Your task to perform on an android device: change notification settings in the gmail app Image 0: 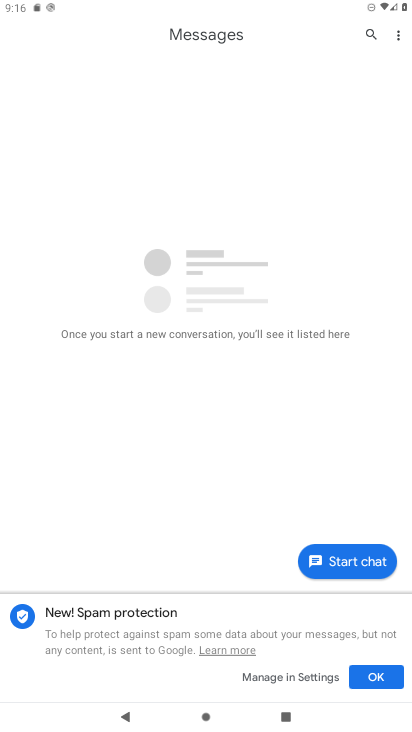
Step 0: press home button
Your task to perform on an android device: change notification settings in the gmail app Image 1: 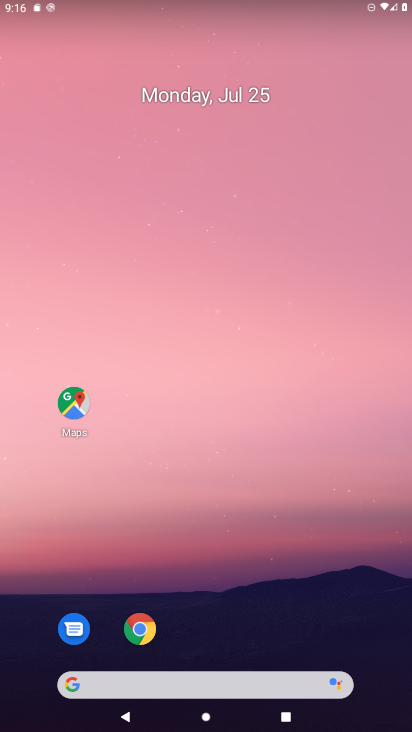
Step 1: drag from (210, 653) to (243, 15)
Your task to perform on an android device: change notification settings in the gmail app Image 2: 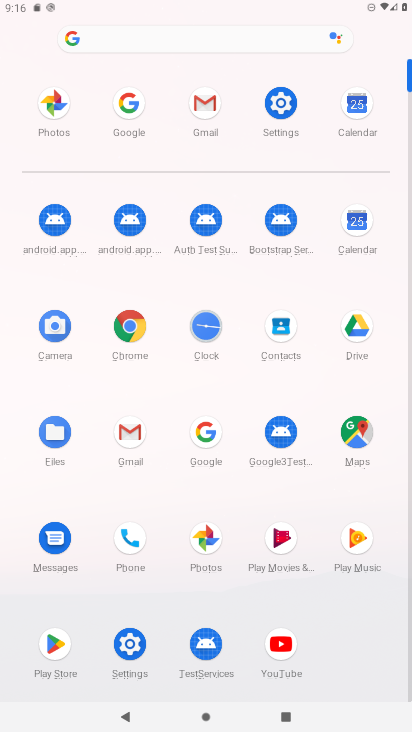
Step 2: click (208, 116)
Your task to perform on an android device: change notification settings in the gmail app Image 3: 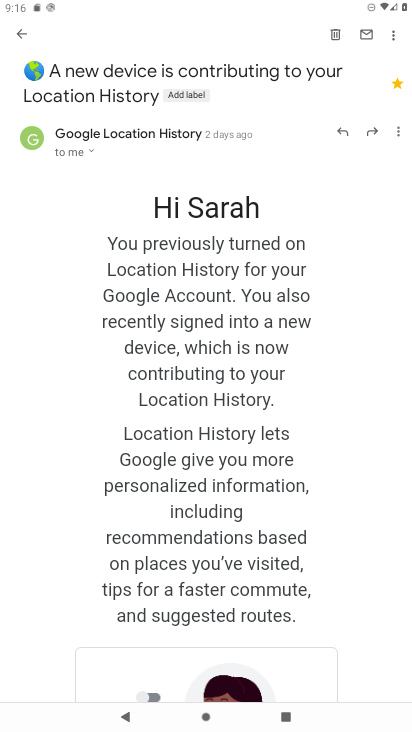
Step 3: click (16, 35)
Your task to perform on an android device: change notification settings in the gmail app Image 4: 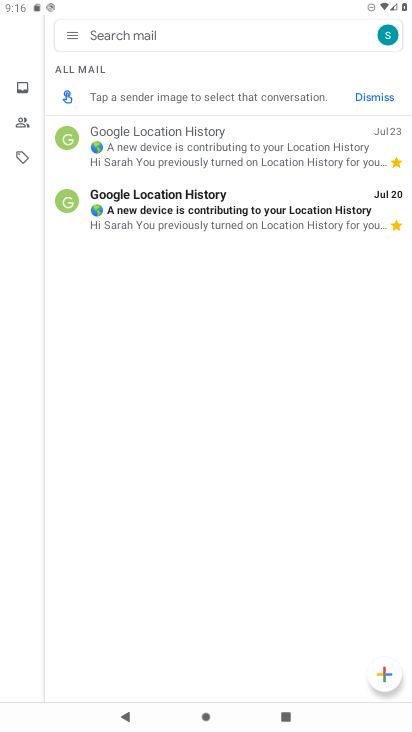
Step 4: click (71, 35)
Your task to perform on an android device: change notification settings in the gmail app Image 5: 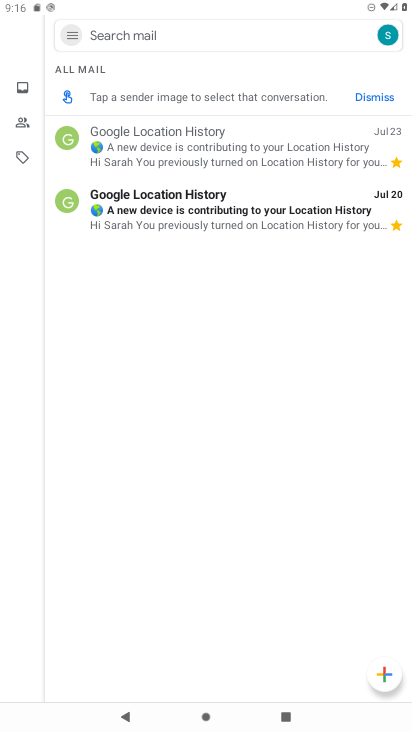
Step 5: click (71, 35)
Your task to perform on an android device: change notification settings in the gmail app Image 6: 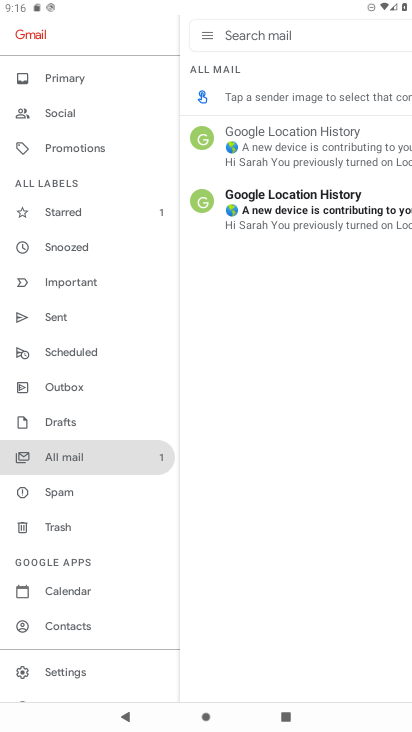
Step 6: drag from (108, 589) to (117, 322)
Your task to perform on an android device: change notification settings in the gmail app Image 7: 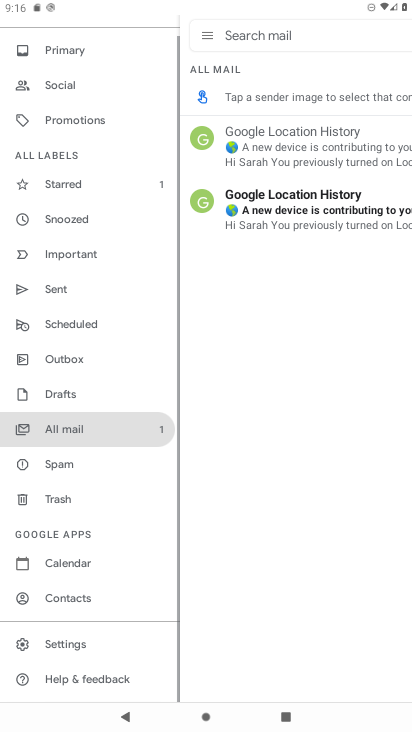
Step 7: click (82, 653)
Your task to perform on an android device: change notification settings in the gmail app Image 8: 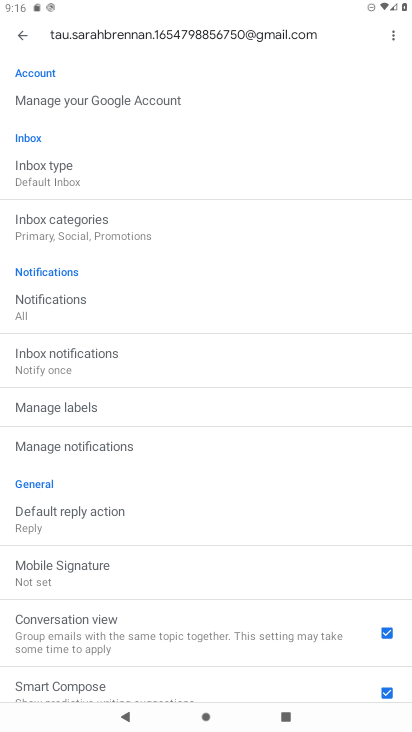
Step 8: click (27, 35)
Your task to perform on an android device: change notification settings in the gmail app Image 9: 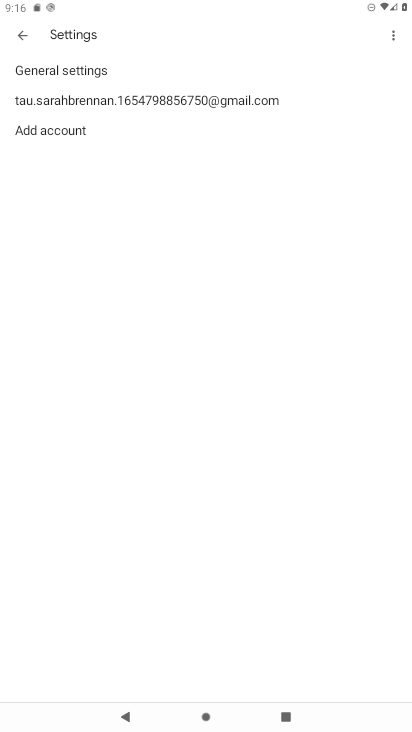
Step 9: click (49, 67)
Your task to perform on an android device: change notification settings in the gmail app Image 10: 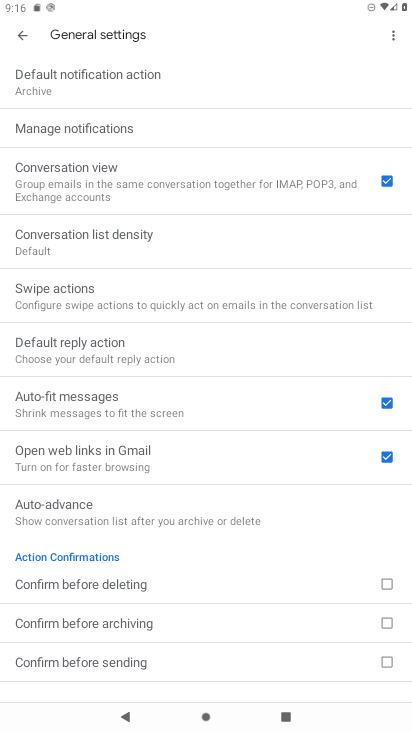
Step 10: click (54, 132)
Your task to perform on an android device: change notification settings in the gmail app Image 11: 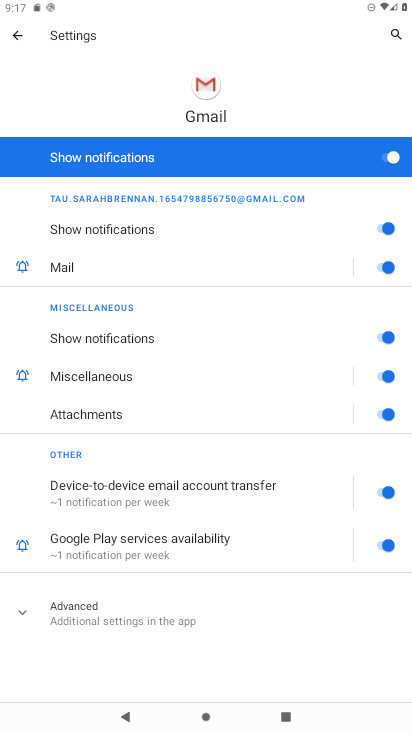
Step 11: click (388, 155)
Your task to perform on an android device: change notification settings in the gmail app Image 12: 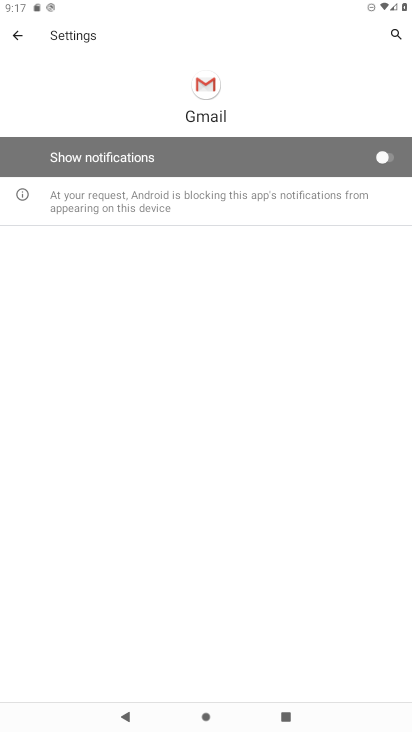
Step 12: task complete